Your task to perform on an android device: Show me recent news Image 0: 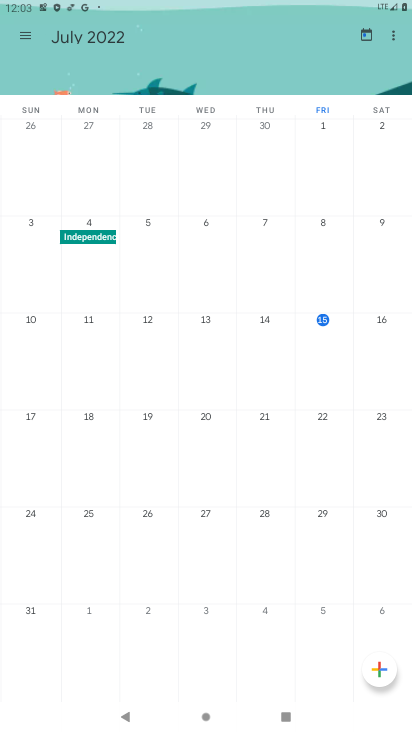
Step 0: click (148, 619)
Your task to perform on an android device: Show me recent news Image 1: 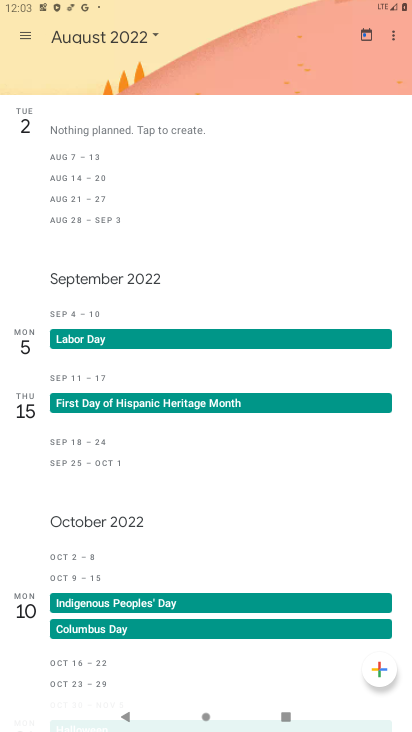
Step 1: press home button
Your task to perform on an android device: Show me recent news Image 2: 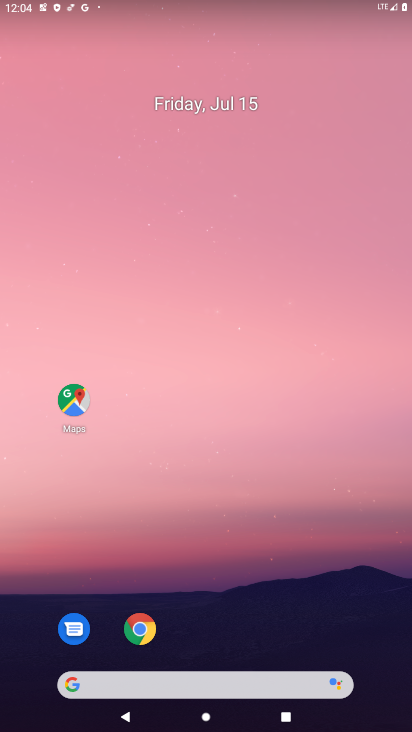
Step 2: click (115, 686)
Your task to perform on an android device: Show me recent news Image 3: 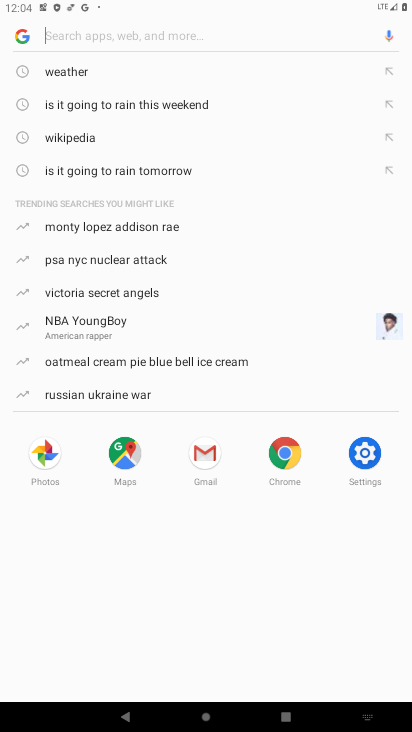
Step 3: type "recent news"
Your task to perform on an android device: Show me recent news Image 4: 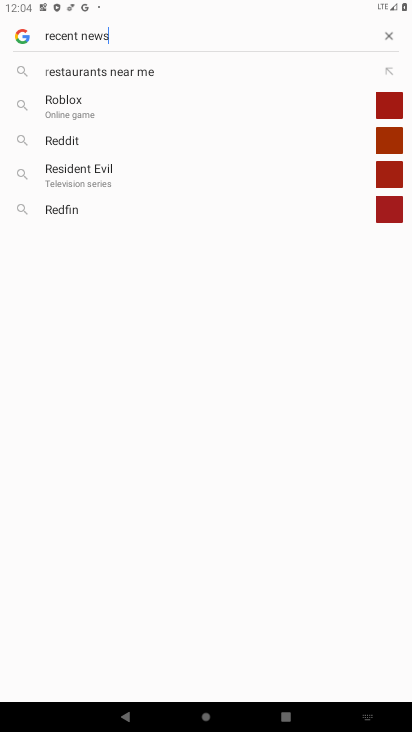
Step 4: type ""
Your task to perform on an android device: Show me recent news Image 5: 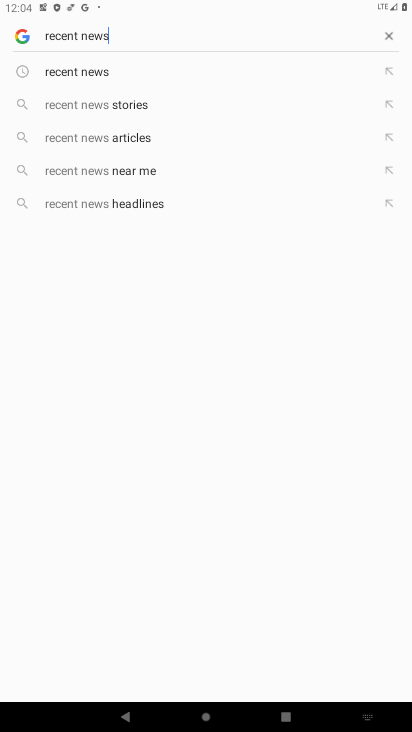
Step 5: click (69, 68)
Your task to perform on an android device: Show me recent news Image 6: 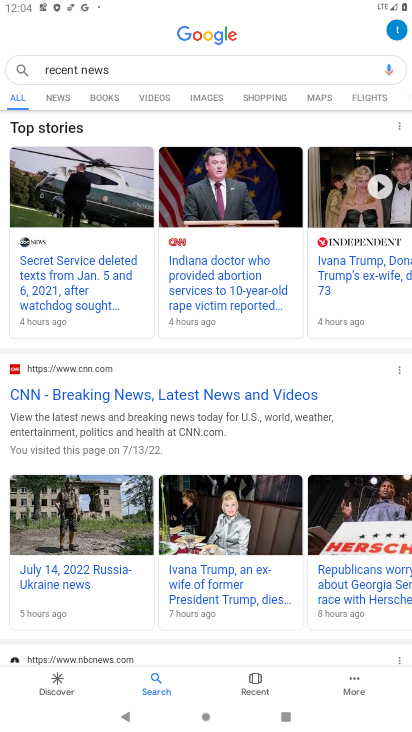
Step 6: task complete